Your task to perform on an android device: open app "LiveIn - Share Your Moment" (install if not already installed) and go to login screen Image 0: 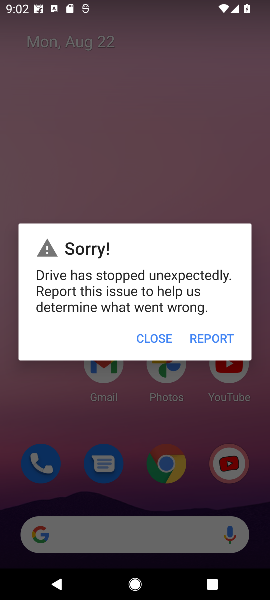
Step 0: press home button
Your task to perform on an android device: open app "LiveIn - Share Your Moment" (install if not already installed) and go to login screen Image 1: 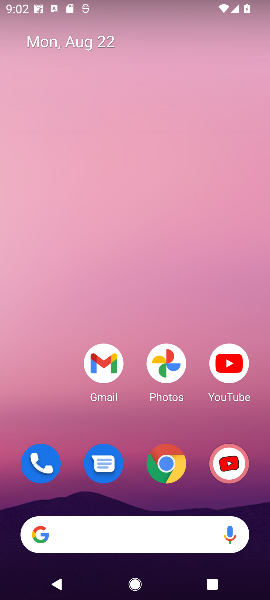
Step 1: drag from (126, 470) to (217, 8)
Your task to perform on an android device: open app "LiveIn - Share Your Moment" (install if not already installed) and go to login screen Image 2: 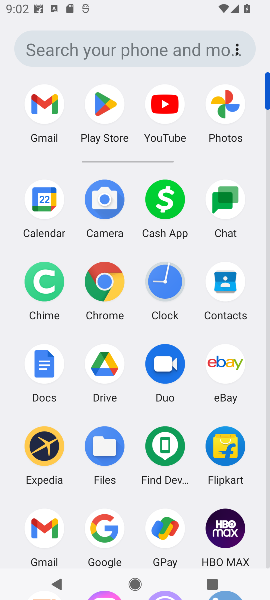
Step 2: click (106, 41)
Your task to perform on an android device: open app "LiveIn - Share Your Moment" (install if not already installed) and go to login screen Image 3: 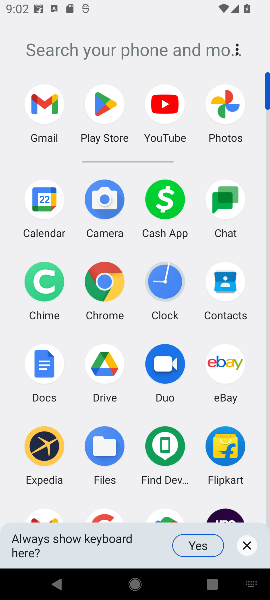
Step 3: type "LiveIn"
Your task to perform on an android device: open app "LiveIn - Share Your Moment" (install if not already installed) and go to login screen Image 4: 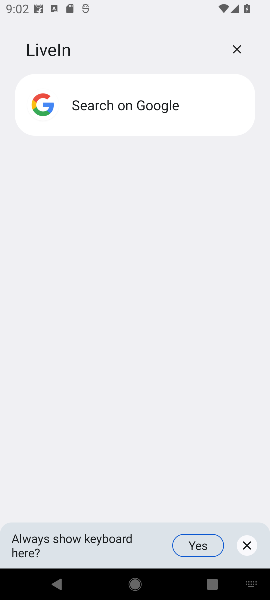
Step 4: click (230, 50)
Your task to perform on an android device: open app "LiveIn - Share Your Moment" (install if not already installed) and go to login screen Image 5: 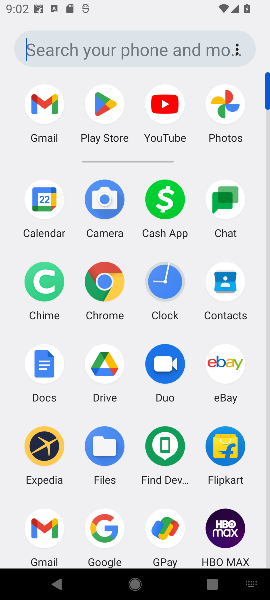
Step 5: click (108, 98)
Your task to perform on an android device: open app "LiveIn - Share Your Moment" (install if not already installed) and go to login screen Image 6: 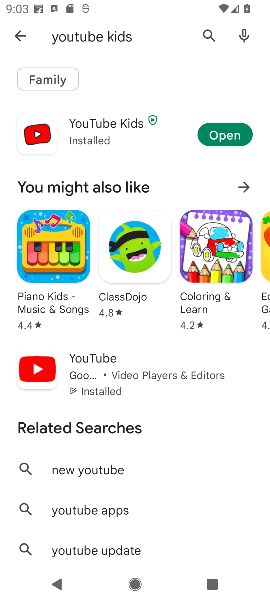
Step 6: click (18, 34)
Your task to perform on an android device: open app "LiveIn - Share Your Moment" (install if not already installed) and go to login screen Image 7: 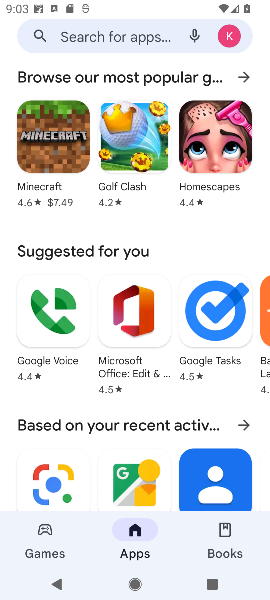
Step 7: click (62, 35)
Your task to perform on an android device: open app "LiveIn - Share Your Moment" (install if not already installed) and go to login screen Image 8: 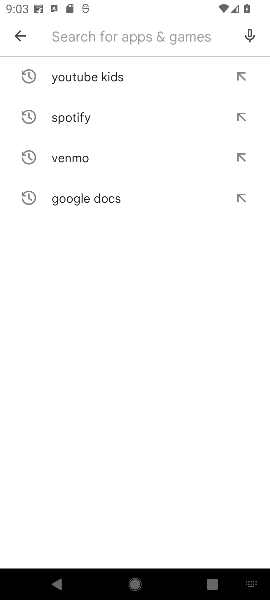
Step 8: type "LiveIn"
Your task to perform on an android device: open app "LiveIn - Share Your Moment" (install if not already installed) and go to login screen Image 9: 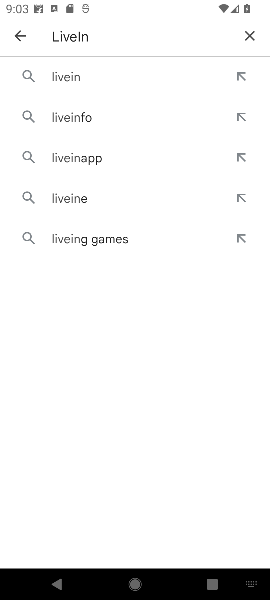
Step 9: click (56, 77)
Your task to perform on an android device: open app "LiveIn - Share Your Moment" (install if not already installed) and go to login screen Image 10: 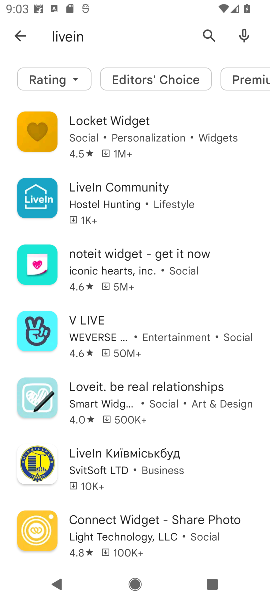
Step 10: click (104, 455)
Your task to perform on an android device: open app "LiveIn - Share Your Moment" (install if not already installed) and go to login screen Image 11: 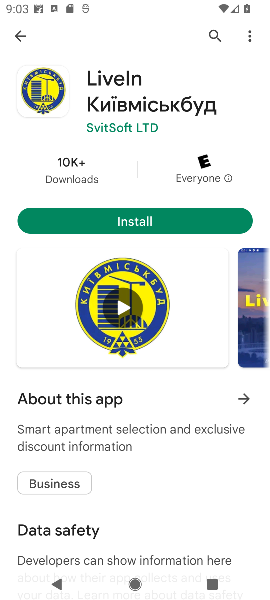
Step 11: click (129, 222)
Your task to perform on an android device: open app "LiveIn - Share Your Moment" (install if not already installed) and go to login screen Image 12: 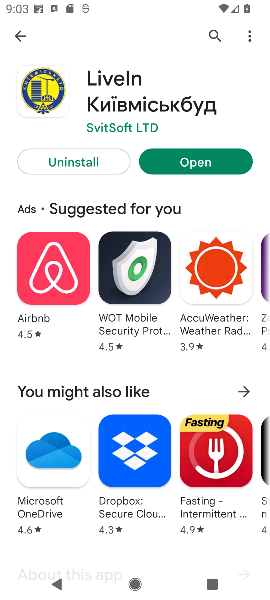
Step 12: click (173, 168)
Your task to perform on an android device: open app "LiveIn - Share Your Moment" (install if not already installed) and go to login screen Image 13: 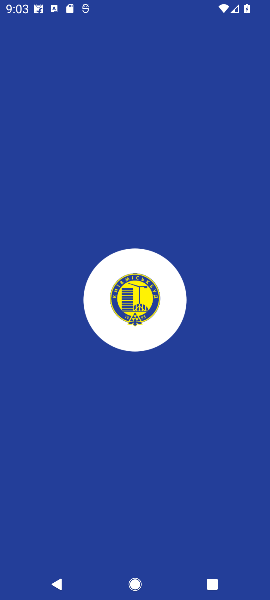
Step 13: task complete